Your task to perform on an android device: turn off translation in the chrome app Image 0: 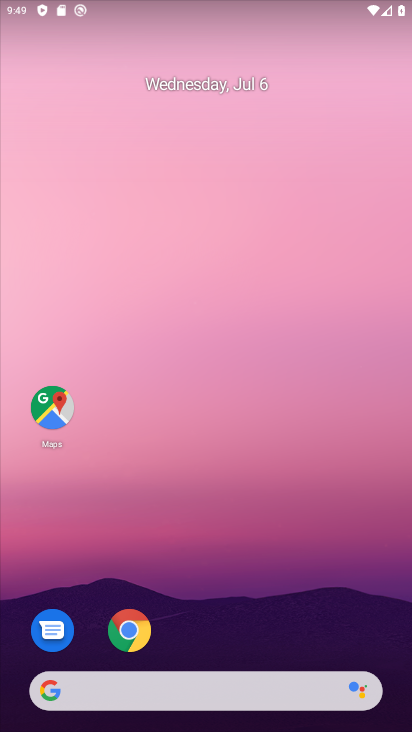
Step 0: drag from (281, 617) to (227, 135)
Your task to perform on an android device: turn off translation in the chrome app Image 1: 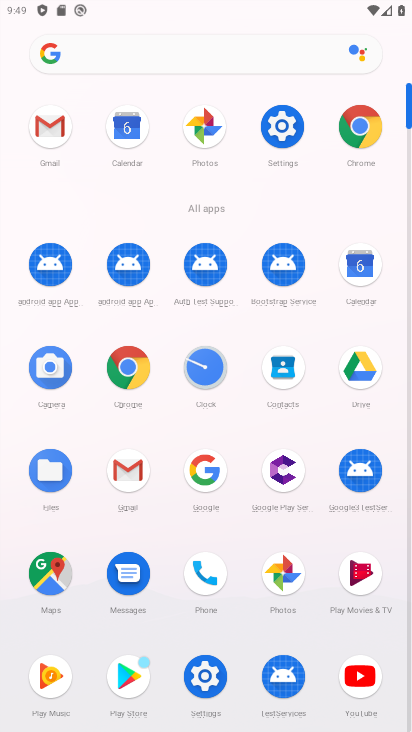
Step 1: click (368, 127)
Your task to perform on an android device: turn off translation in the chrome app Image 2: 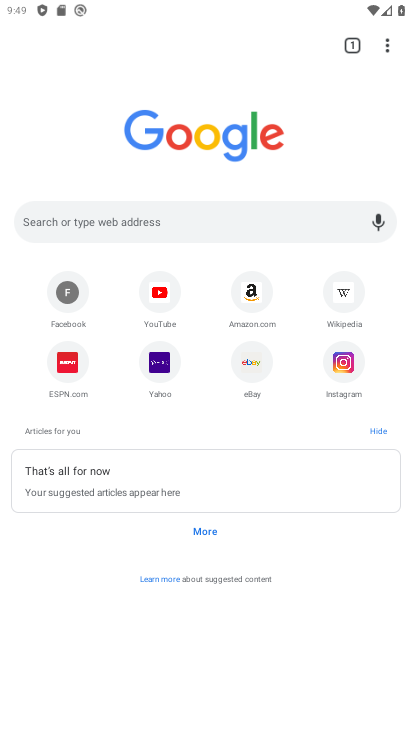
Step 2: drag from (384, 48) to (224, 367)
Your task to perform on an android device: turn off translation in the chrome app Image 3: 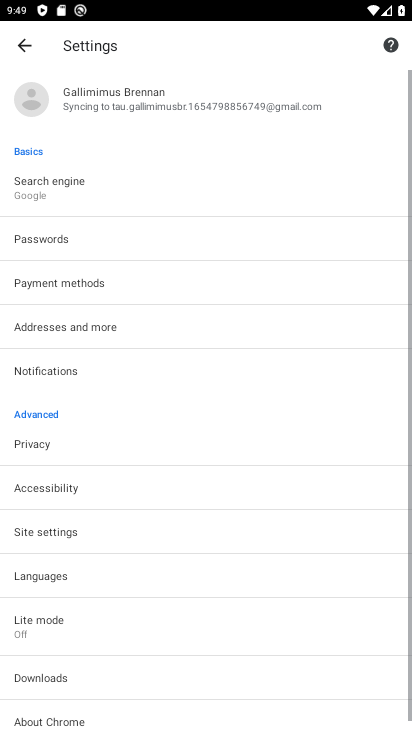
Step 3: drag from (60, 700) to (58, 575)
Your task to perform on an android device: turn off translation in the chrome app Image 4: 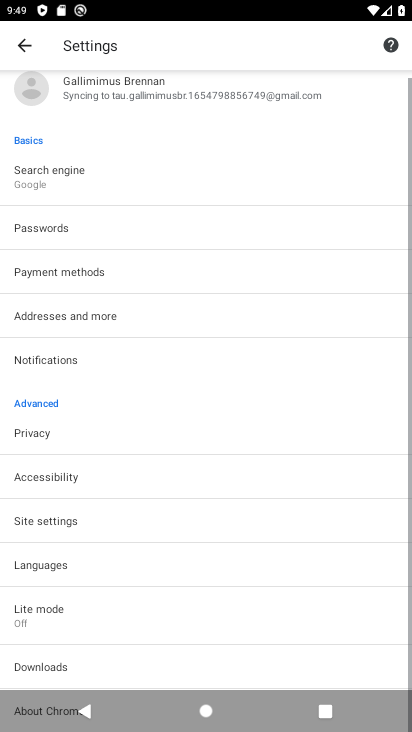
Step 4: click (56, 565)
Your task to perform on an android device: turn off translation in the chrome app Image 5: 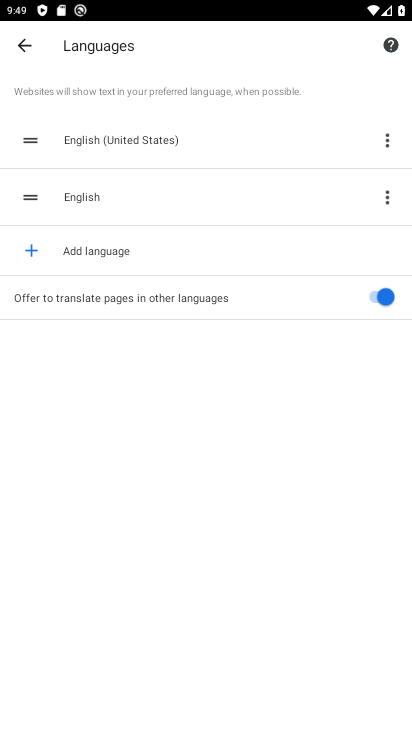
Step 5: click (256, 287)
Your task to perform on an android device: turn off translation in the chrome app Image 6: 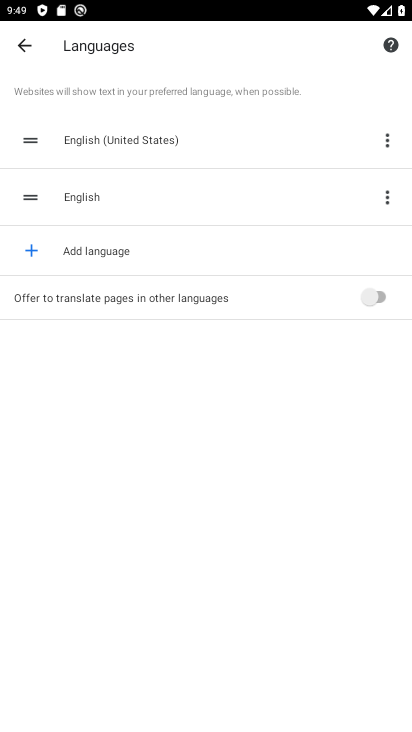
Step 6: task complete